Your task to perform on an android device: remove spam from my inbox in the gmail app Image 0: 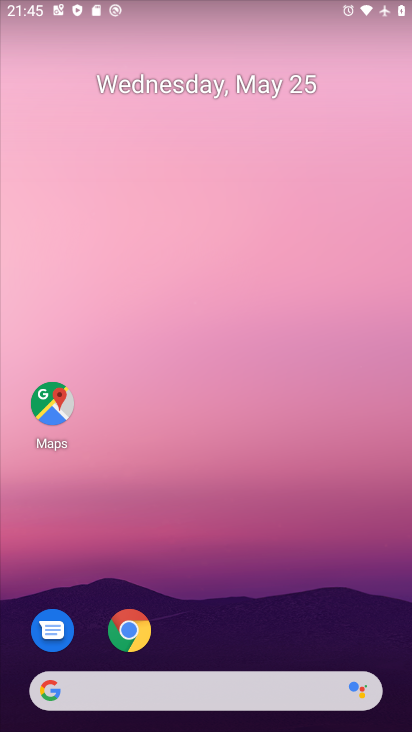
Step 0: drag from (189, 638) to (181, 210)
Your task to perform on an android device: remove spam from my inbox in the gmail app Image 1: 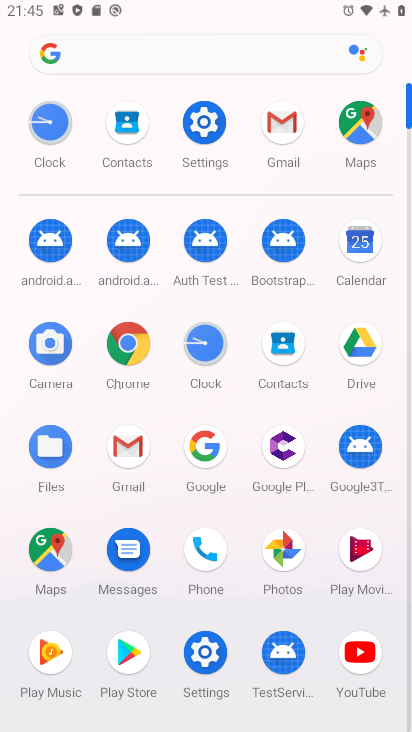
Step 1: click (111, 453)
Your task to perform on an android device: remove spam from my inbox in the gmail app Image 2: 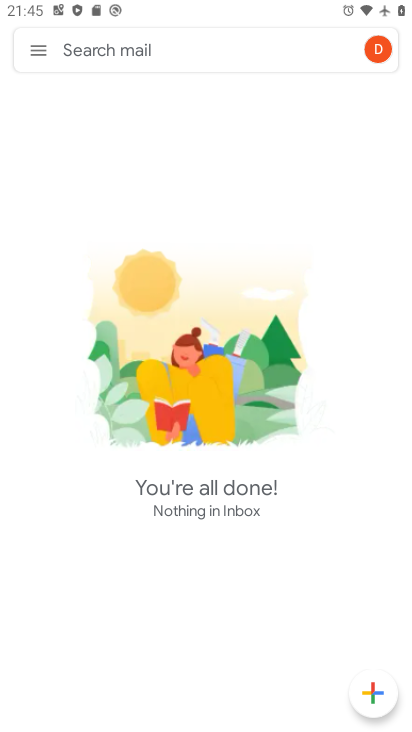
Step 2: click (40, 50)
Your task to perform on an android device: remove spam from my inbox in the gmail app Image 3: 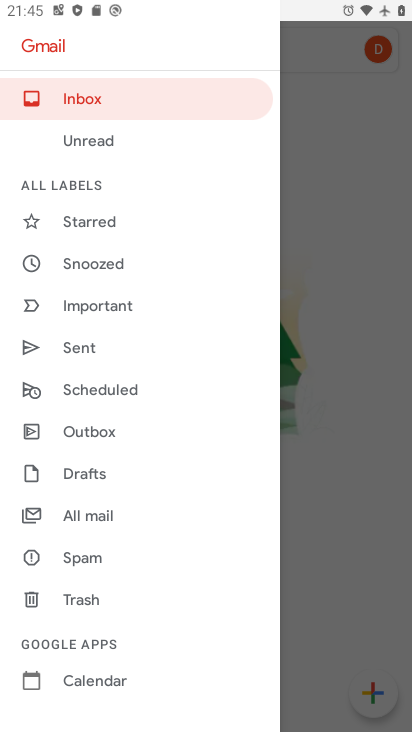
Step 3: click (116, 556)
Your task to perform on an android device: remove spam from my inbox in the gmail app Image 4: 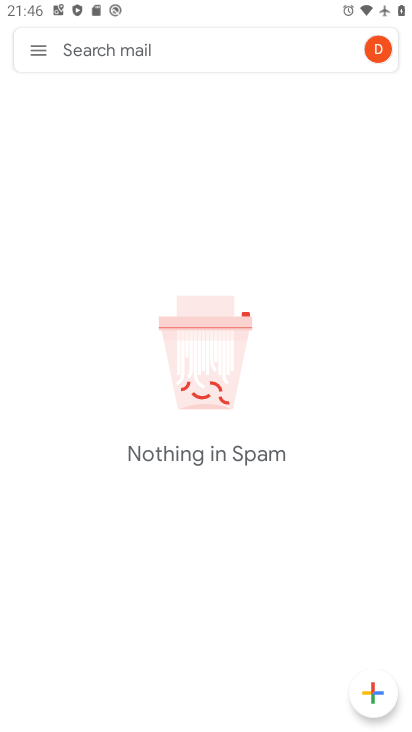
Step 4: task complete